Your task to perform on an android device: Go to privacy settings Image 0: 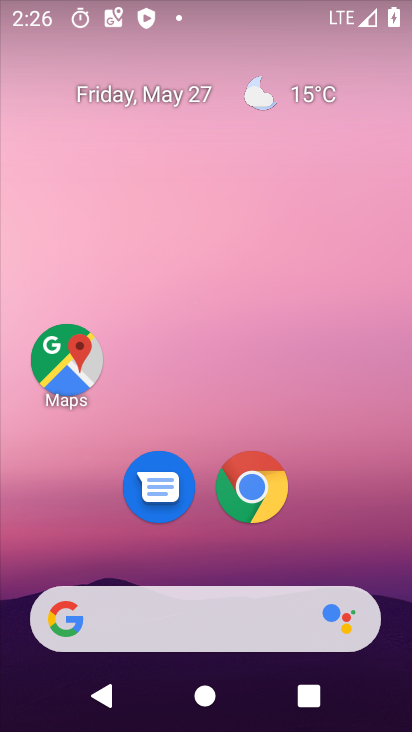
Step 0: drag from (347, 499) to (361, 53)
Your task to perform on an android device: Go to privacy settings Image 1: 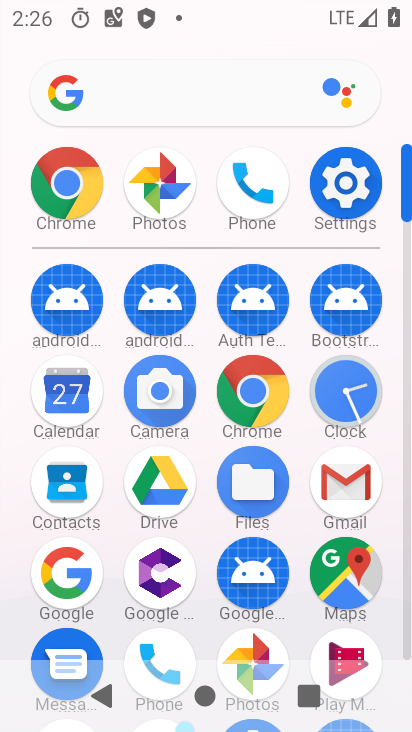
Step 1: click (343, 184)
Your task to perform on an android device: Go to privacy settings Image 2: 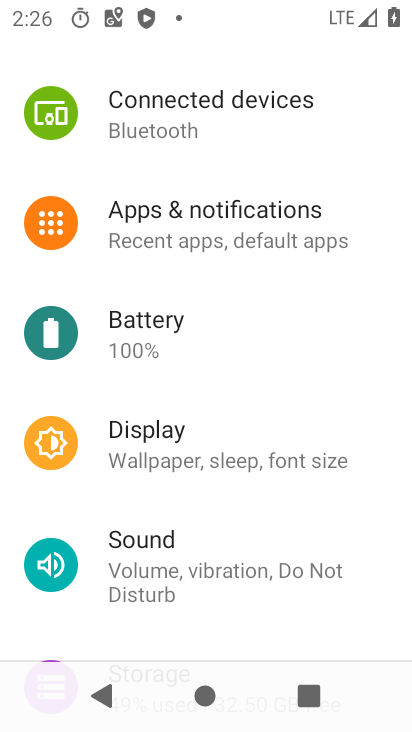
Step 2: drag from (242, 516) to (312, 32)
Your task to perform on an android device: Go to privacy settings Image 3: 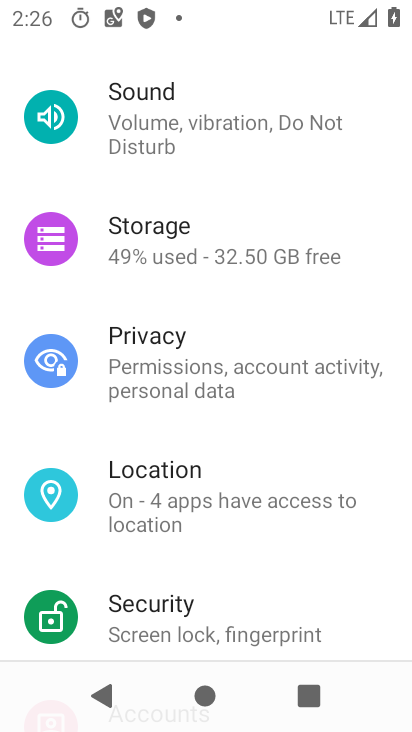
Step 3: click (207, 365)
Your task to perform on an android device: Go to privacy settings Image 4: 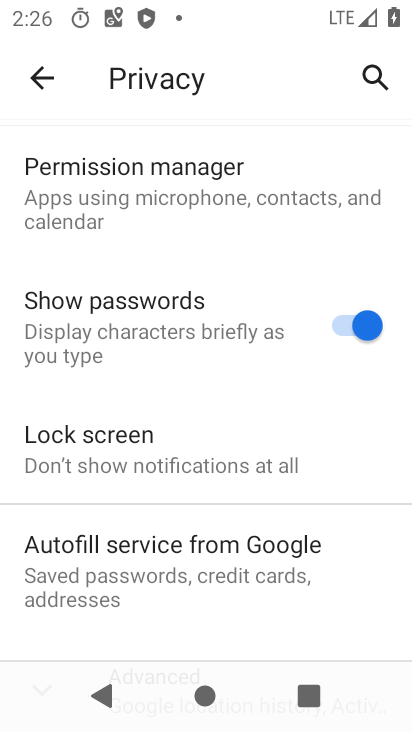
Step 4: task complete